Your task to perform on an android device: turn on wifi Image 0: 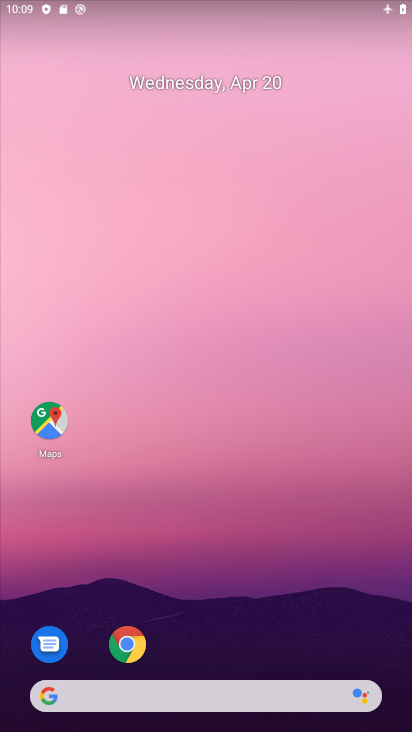
Step 0: drag from (201, 442) to (223, 78)
Your task to perform on an android device: turn on wifi Image 1: 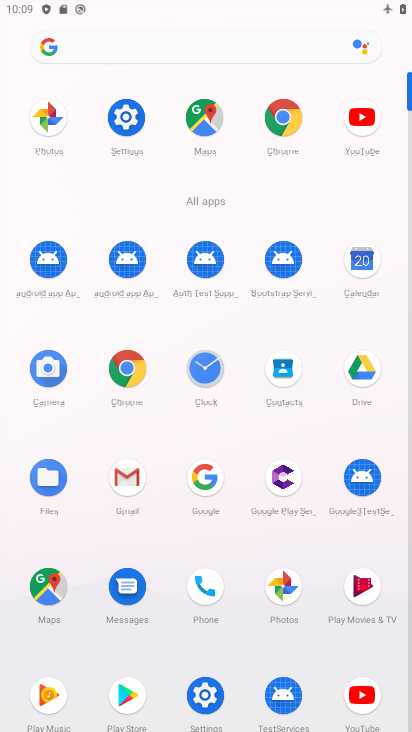
Step 1: click (119, 117)
Your task to perform on an android device: turn on wifi Image 2: 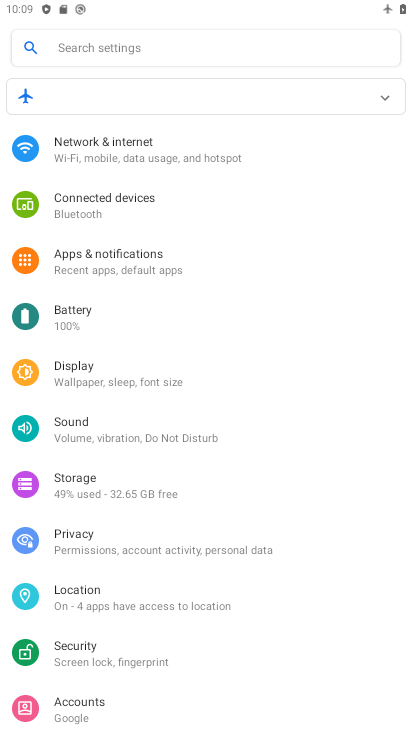
Step 2: click (141, 153)
Your task to perform on an android device: turn on wifi Image 3: 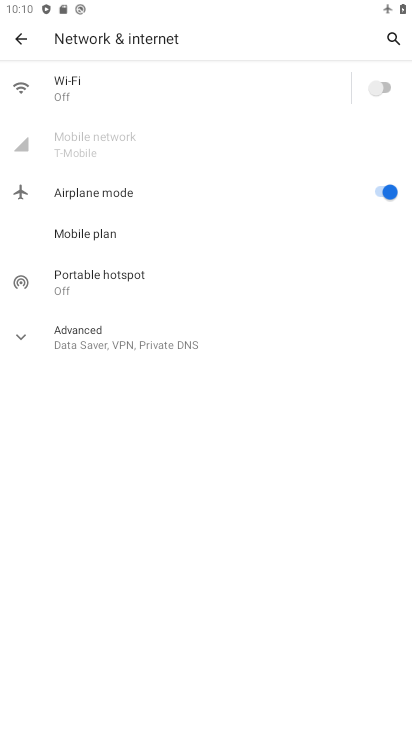
Step 3: click (379, 96)
Your task to perform on an android device: turn on wifi Image 4: 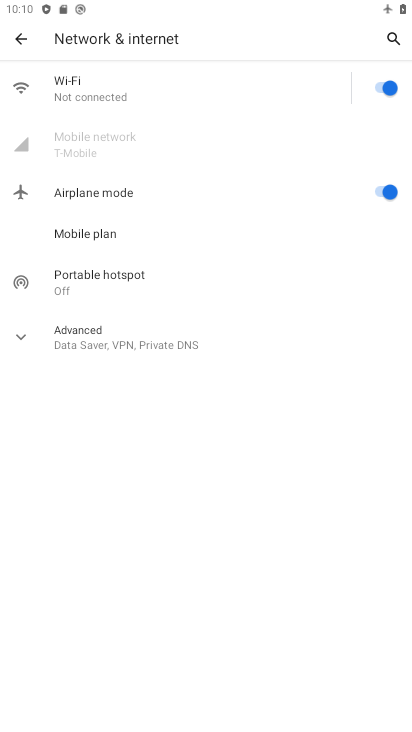
Step 4: task complete